Your task to perform on an android device: What's the weather going to be this weekend? Image 0: 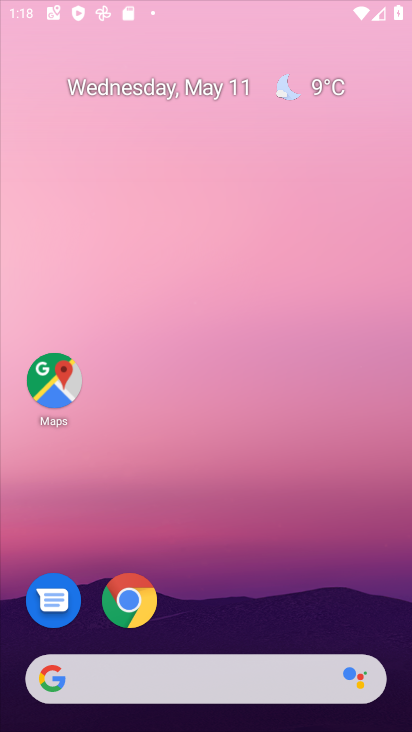
Step 0: click (206, 418)
Your task to perform on an android device: What's the weather going to be this weekend? Image 1: 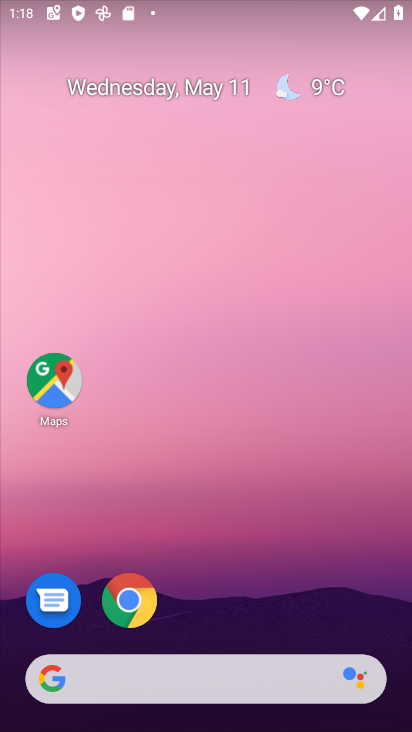
Step 1: click (253, 677)
Your task to perform on an android device: What's the weather going to be this weekend? Image 2: 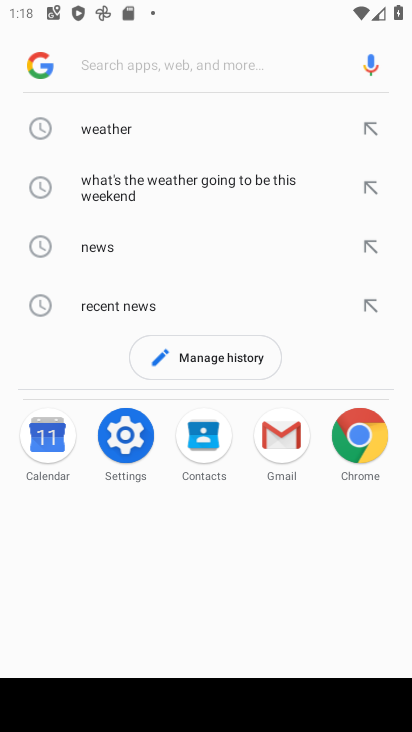
Step 2: type "What's the weather going to be this weekend?"
Your task to perform on an android device: What's the weather going to be this weekend? Image 3: 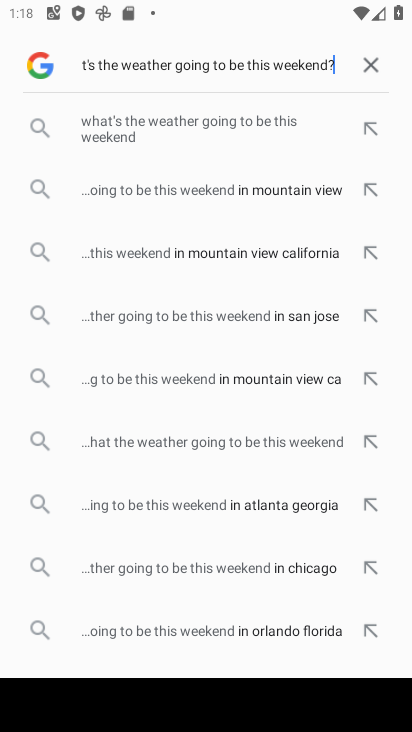
Step 3: click (287, 127)
Your task to perform on an android device: What's the weather going to be this weekend? Image 4: 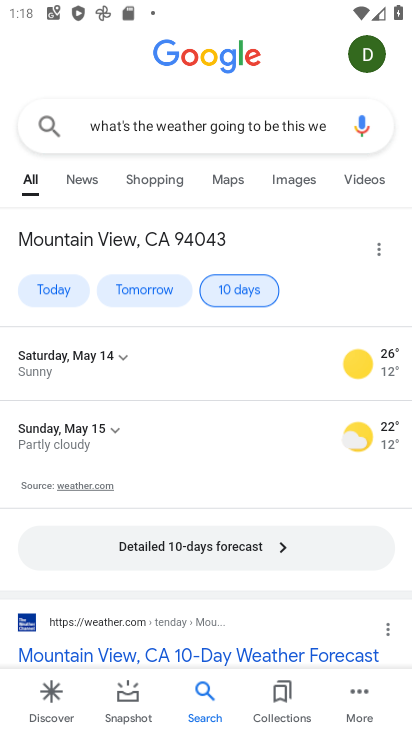
Step 4: task complete